Your task to perform on an android device: turn pop-ups off in chrome Image 0: 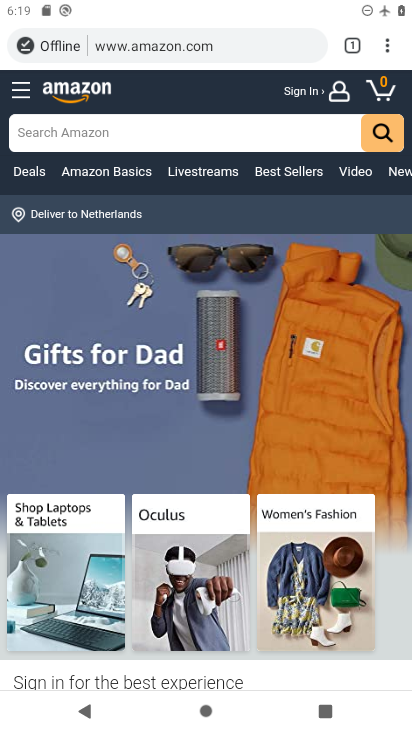
Step 0: click (385, 48)
Your task to perform on an android device: turn pop-ups off in chrome Image 1: 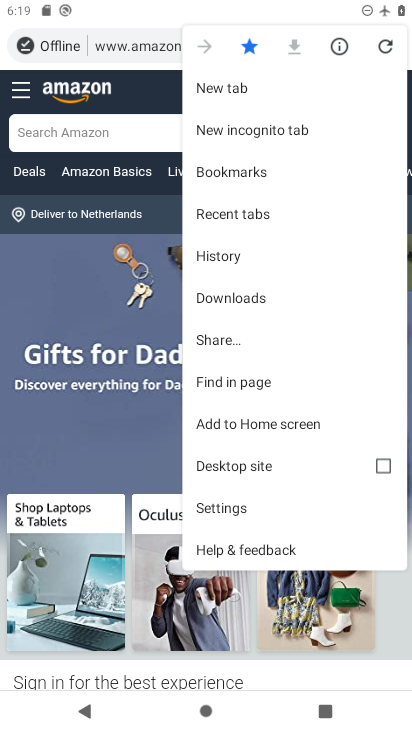
Step 1: click (225, 511)
Your task to perform on an android device: turn pop-ups off in chrome Image 2: 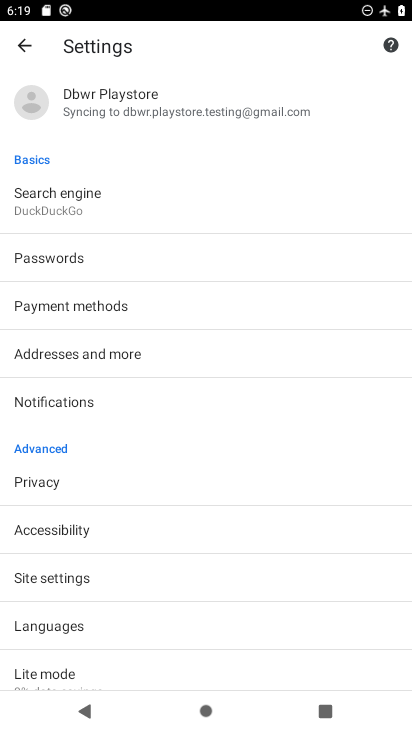
Step 2: click (51, 580)
Your task to perform on an android device: turn pop-ups off in chrome Image 3: 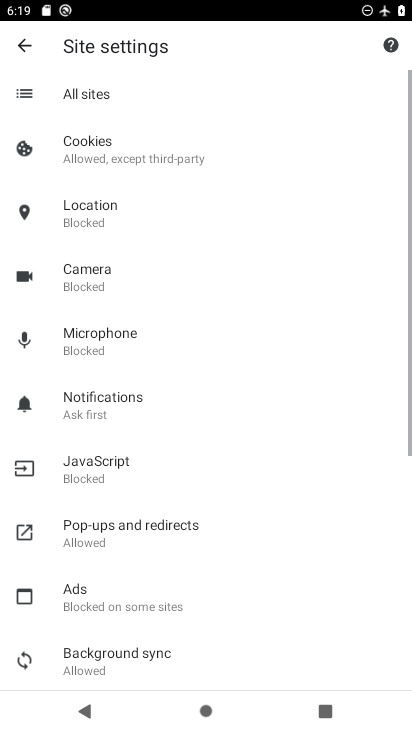
Step 3: click (97, 532)
Your task to perform on an android device: turn pop-ups off in chrome Image 4: 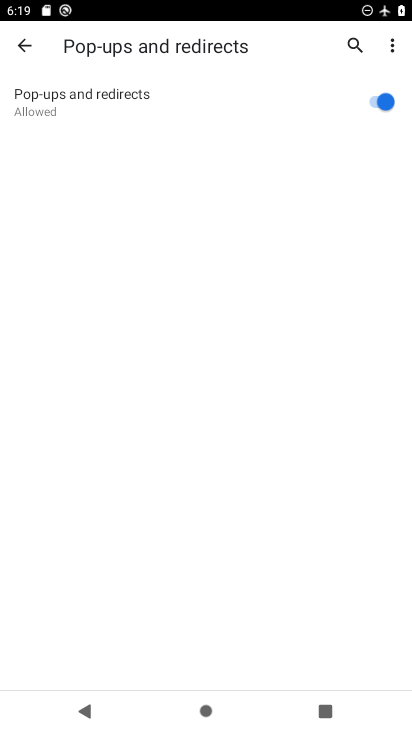
Step 4: click (362, 106)
Your task to perform on an android device: turn pop-ups off in chrome Image 5: 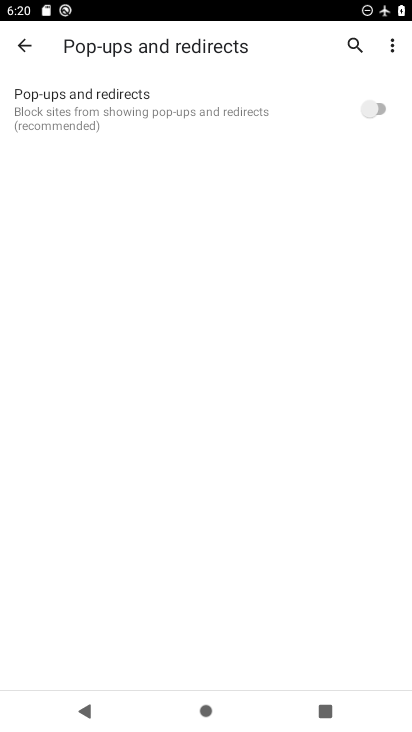
Step 5: task complete